Your task to perform on an android device: turn on wifi Image 0: 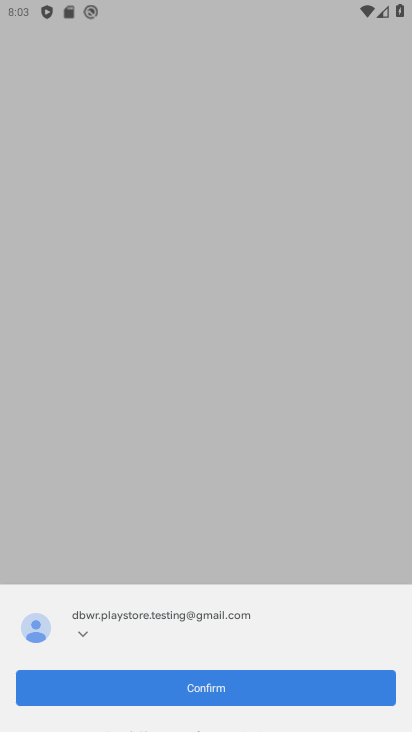
Step 0: press home button
Your task to perform on an android device: turn on wifi Image 1: 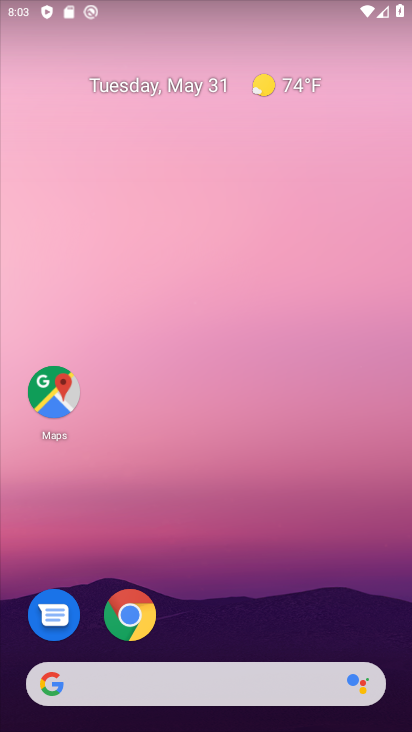
Step 1: drag from (148, 682) to (288, 122)
Your task to perform on an android device: turn on wifi Image 2: 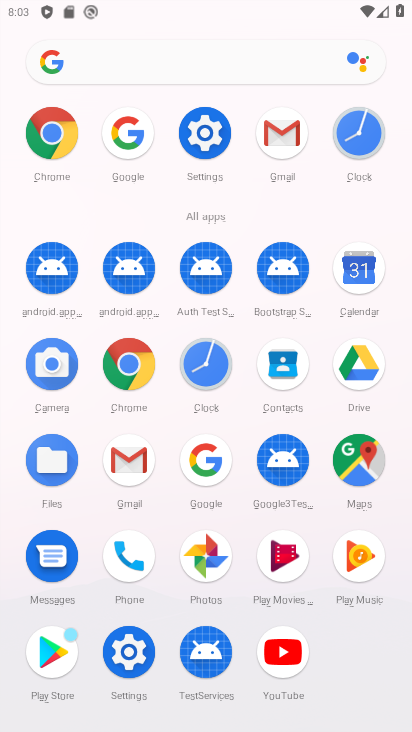
Step 2: click (205, 132)
Your task to perform on an android device: turn on wifi Image 3: 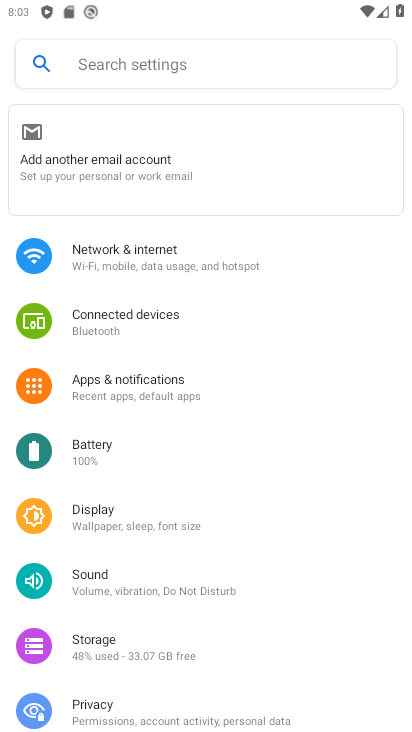
Step 3: click (125, 255)
Your task to perform on an android device: turn on wifi Image 4: 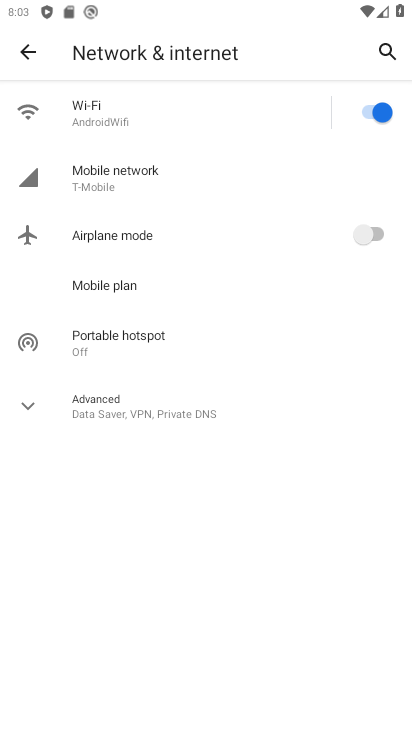
Step 4: task complete